Your task to perform on an android device: Open accessibility settings Image 0: 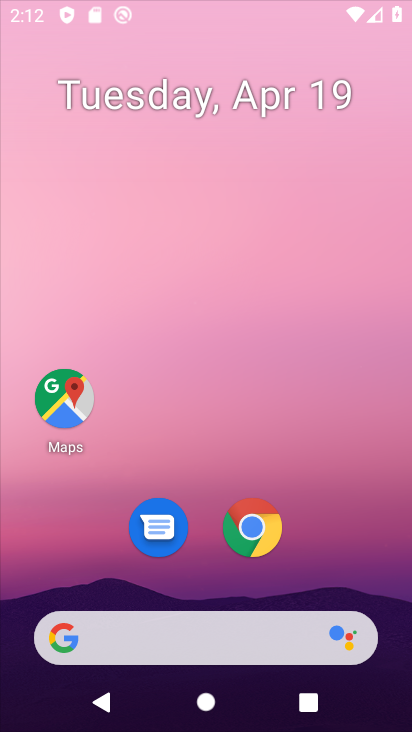
Step 0: drag from (201, 490) to (235, 281)
Your task to perform on an android device: Open accessibility settings Image 1: 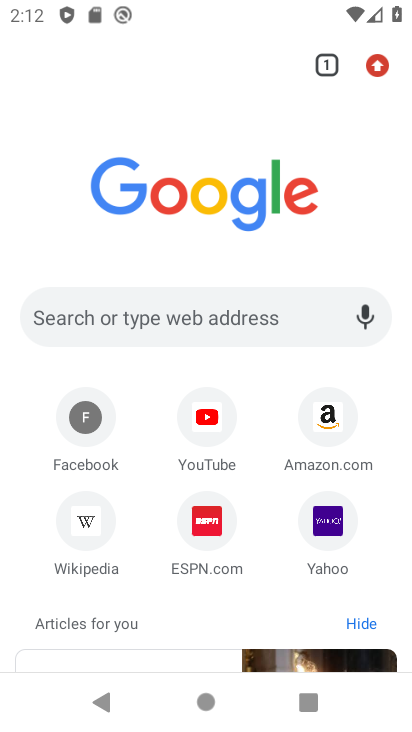
Step 1: press back button
Your task to perform on an android device: Open accessibility settings Image 2: 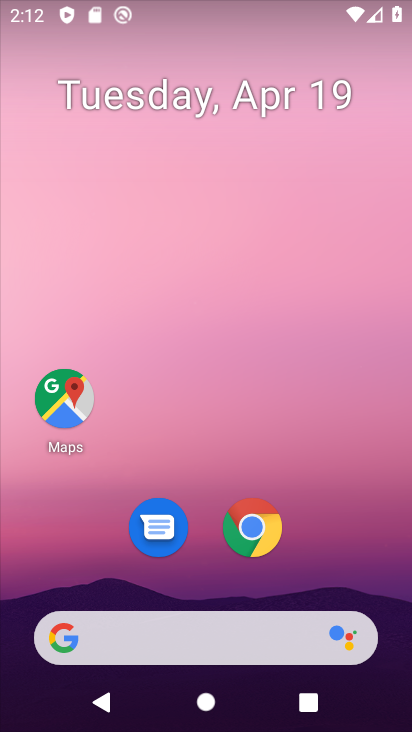
Step 2: drag from (191, 484) to (258, 201)
Your task to perform on an android device: Open accessibility settings Image 3: 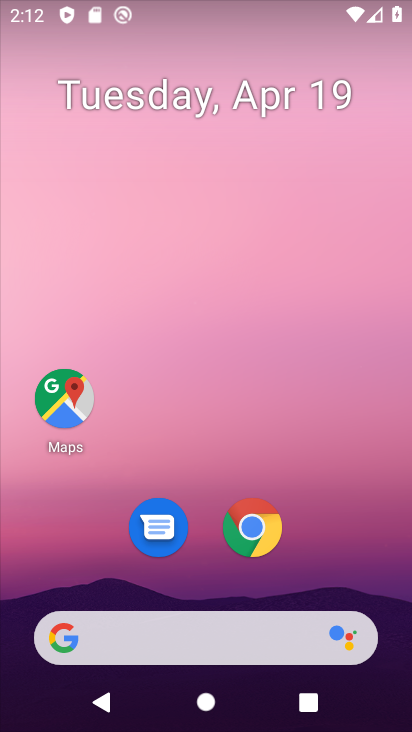
Step 3: drag from (185, 611) to (203, 162)
Your task to perform on an android device: Open accessibility settings Image 4: 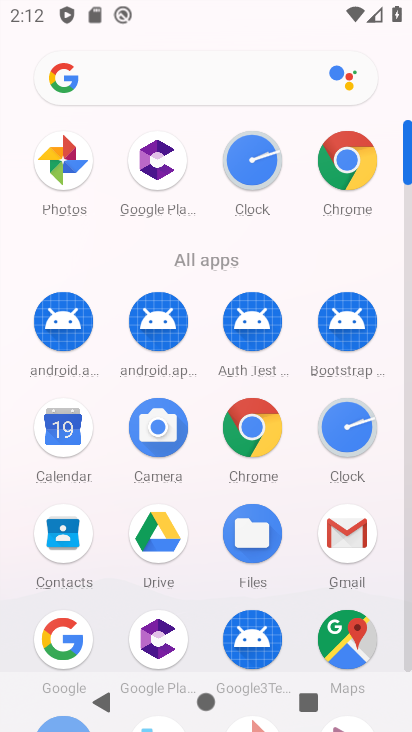
Step 4: drag from (201, 624) to (247, 180)
Your task to perform on an android device: Open accessibility settings Image 5: 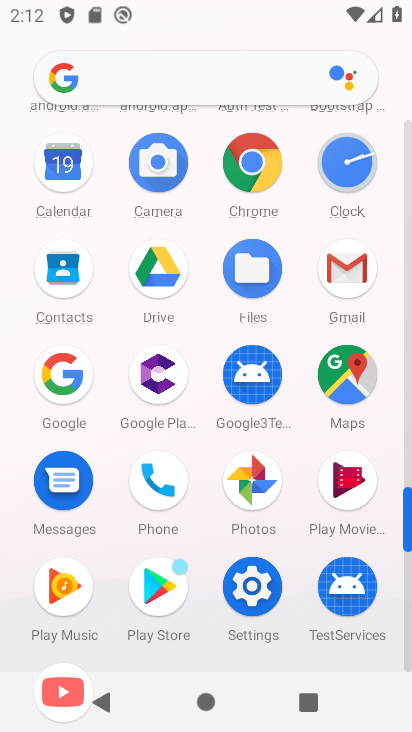
Step 5: click (252, 593)
Your task to perform on an android device: Open accessibility settings Image 6: 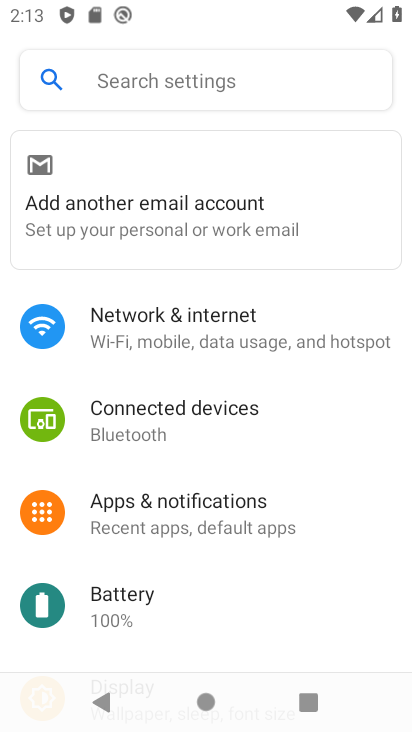
Step 6: drag from (161, 655) to (235, 270)
Your task to perform on an android device: Open accessibility settings Image 7: 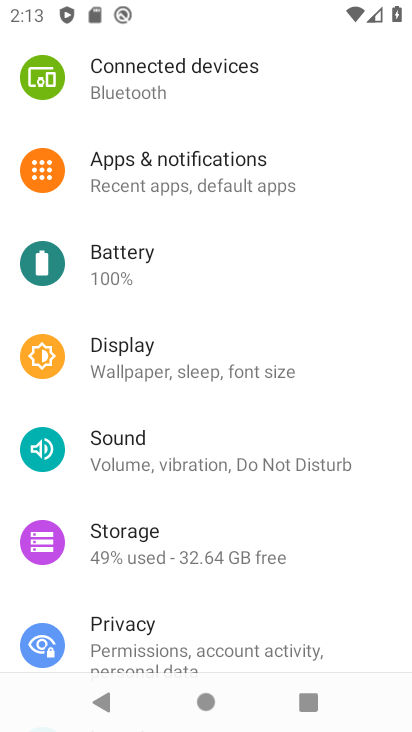
Step 7: drag from (212, 656) to (259, 302)
Your task to perform on an android device: Open accessibility settings Image 8: 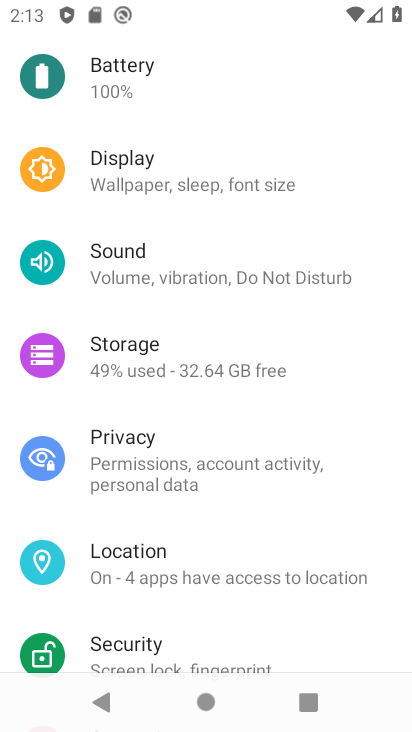
Step 8: drag from (192, 665) to (225, 364)
Your task to perform on an android device: Open accessibility settings Image 9: 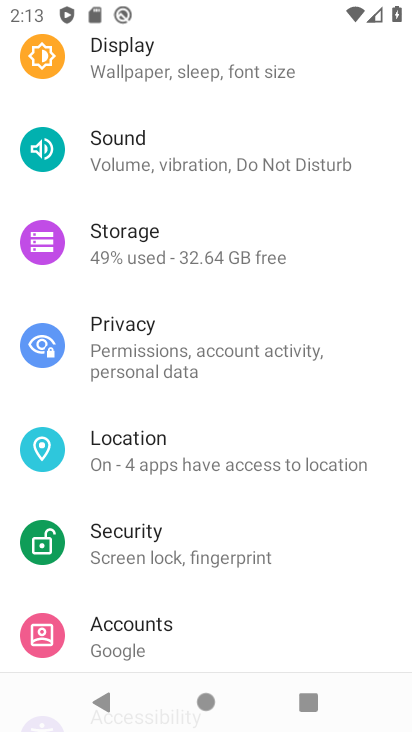
Step 9: drag from (167, 671) to (251, 352)
Your task to perform on an android device: Open accessibility settings Image 10: 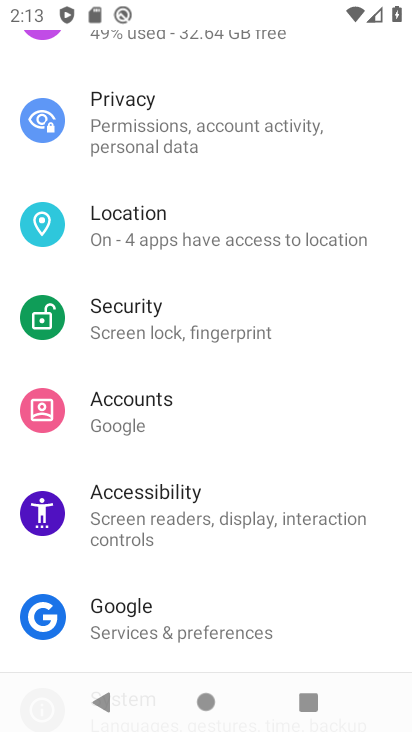
Step 10: click (176, 516)
Your task to perform on an android device: Open accessibility settings Image 11: 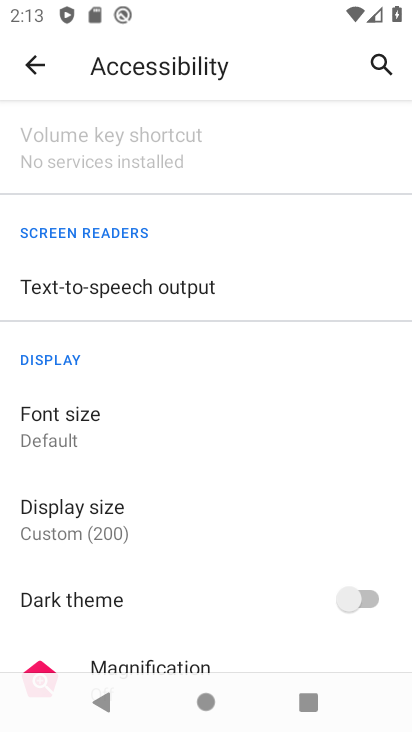
Step 11: task complete